Your task to perform on an android device: Check the settings for the Uber app Image 0: 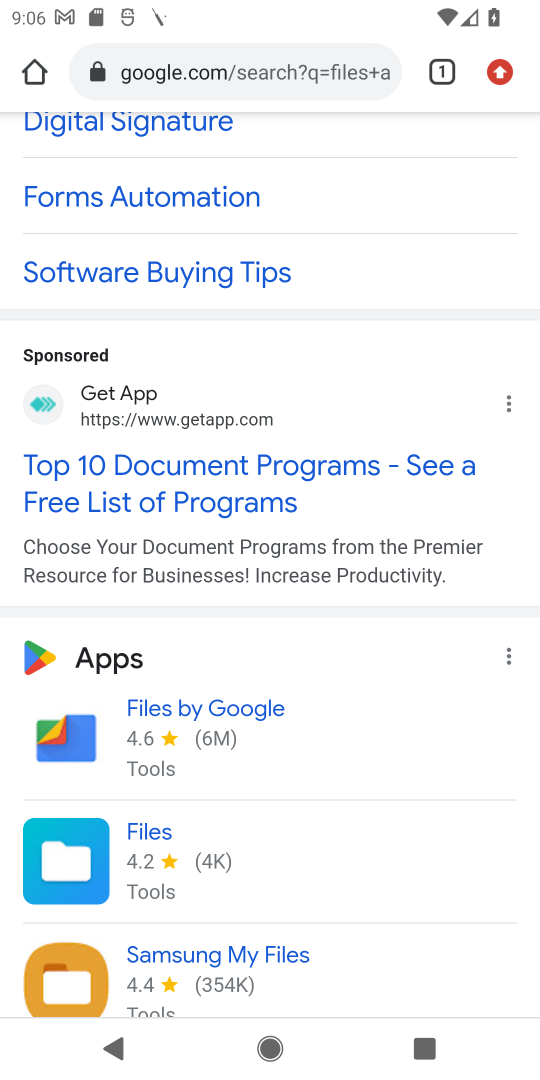
Step 0: click (229, 64)
Your task to perform on an android device: Check the settings for the Uber app Image 1: 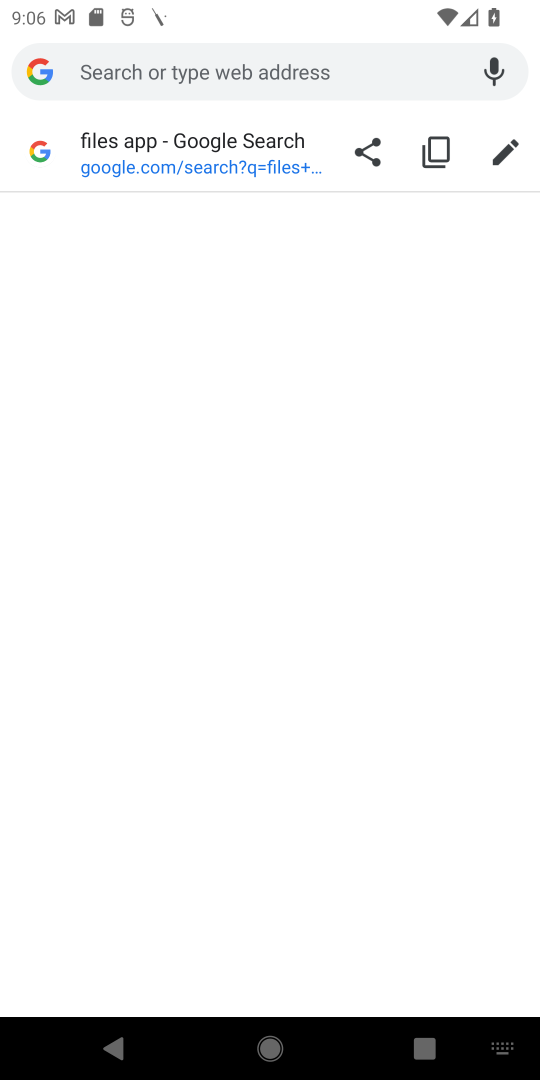
Step 1: press home button
Your task to perform on an android device: Check the settings for the Uber app Image 2: 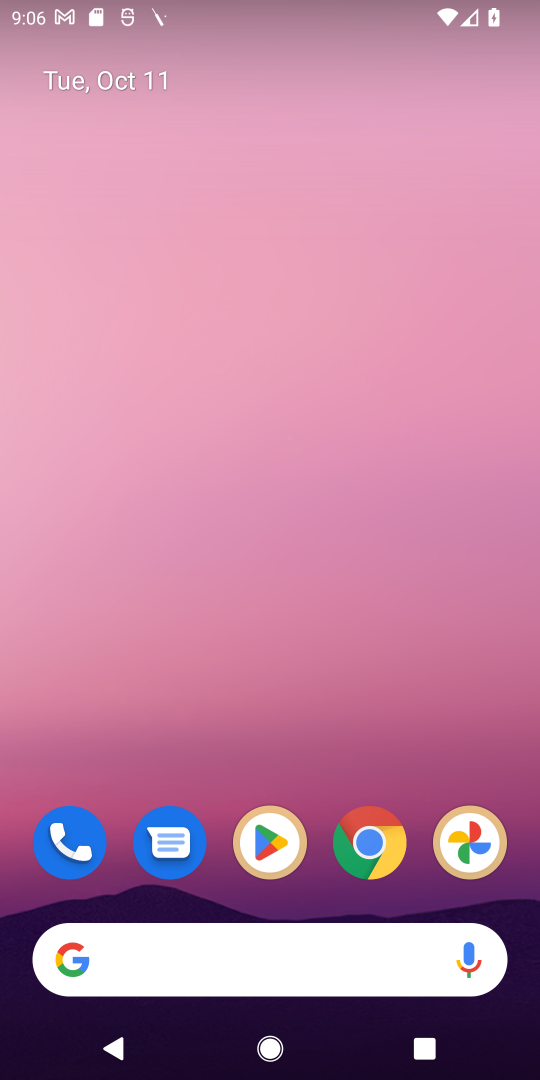
Step 2: drag from (277, 717) to (395, 153)
Your task to perform on an android device: Check the settings for the Uber app Image 3: 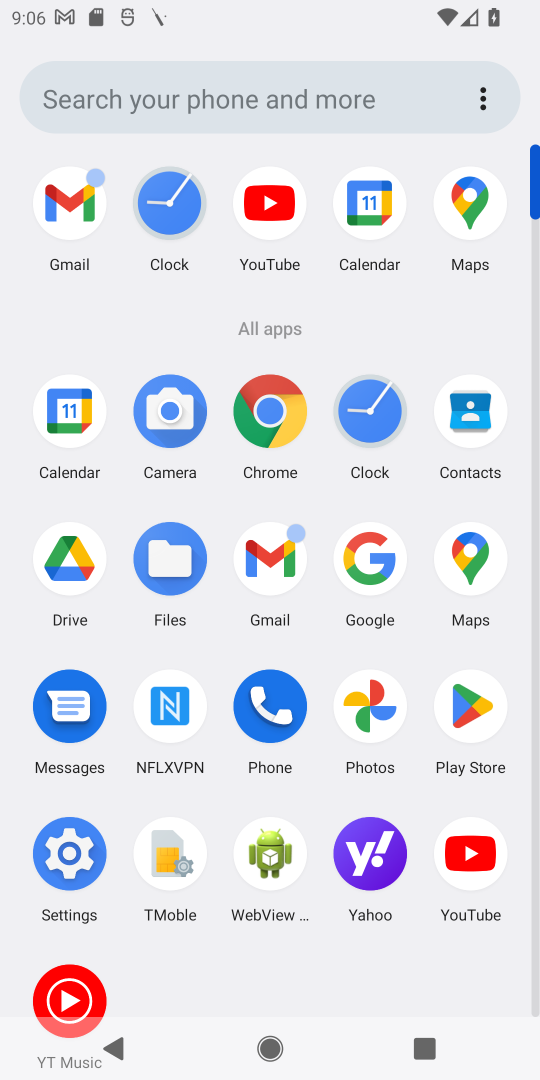
Step 3: drag from (203, 945) to (293, 353)
Your task to perform on an android device: Check the settings for the Uber app Image 4: 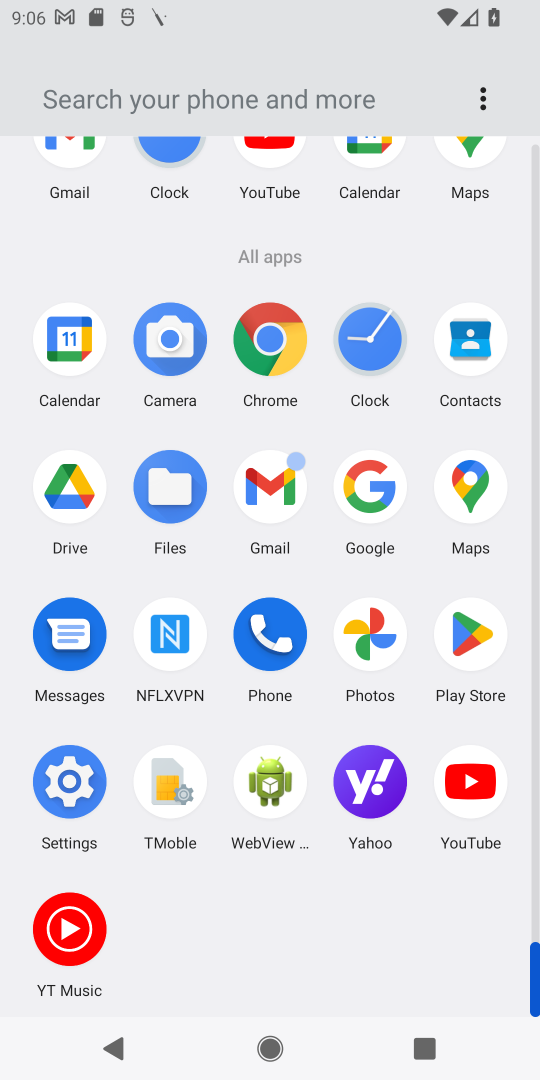
Step 4: drag from (250, 904) to (333, 479)
Your task to perform on an android device: Check the settings for the Uber app Image 5: 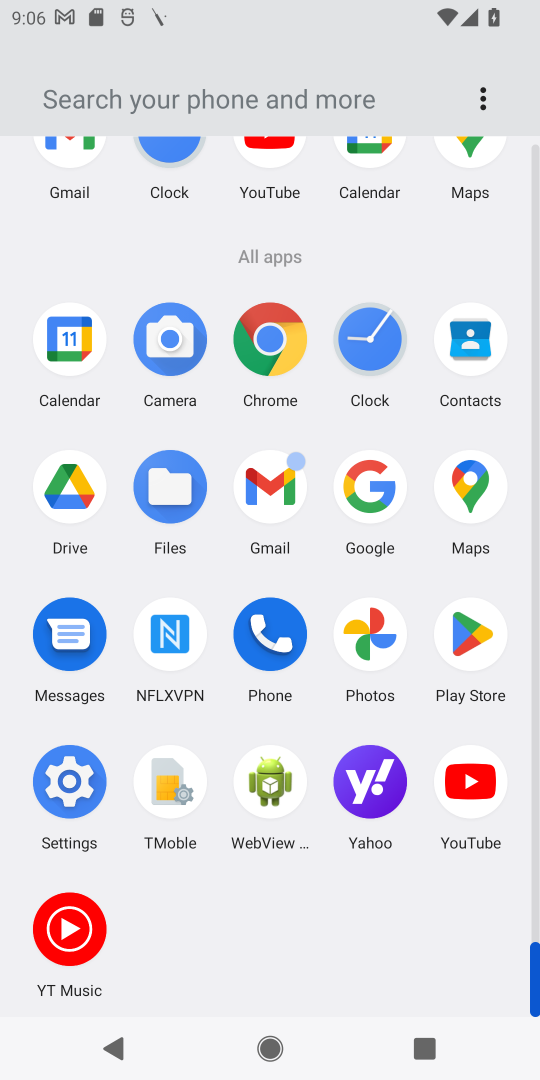
Step 5: drag from (319, 278) to (299, 964)
Your task to perform on an android device: Check the settings for the Uber app Image 6: 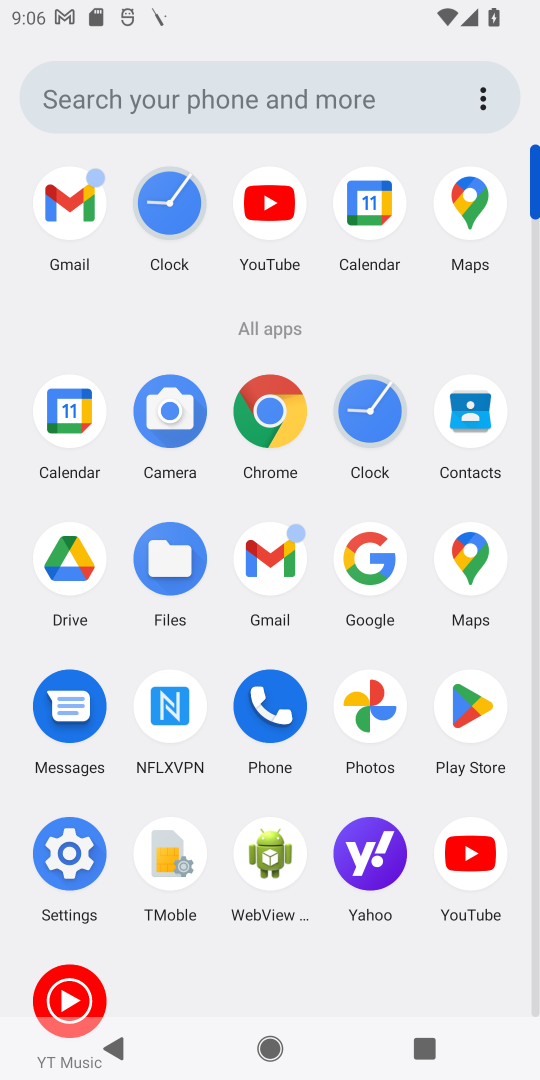
Step 6: drag from (295, 744) to (347, 324)
Your task to perform on an android device: Check the settings for the Uber app Image 7: 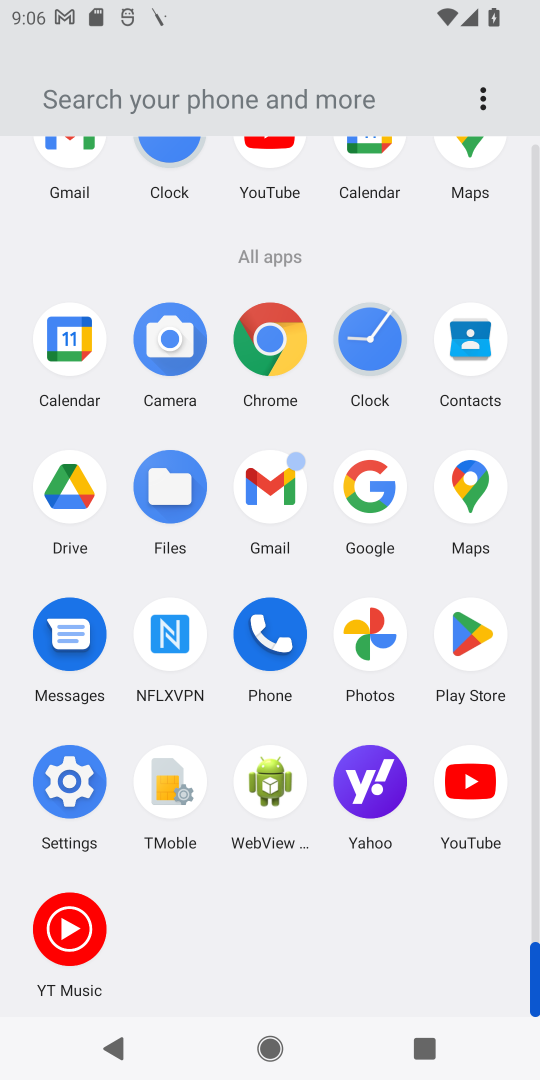
Step 7: drag from (313, 420) to (311, 998)
Your task to perform on an android device: Check the settings for the Uber app Image 8: 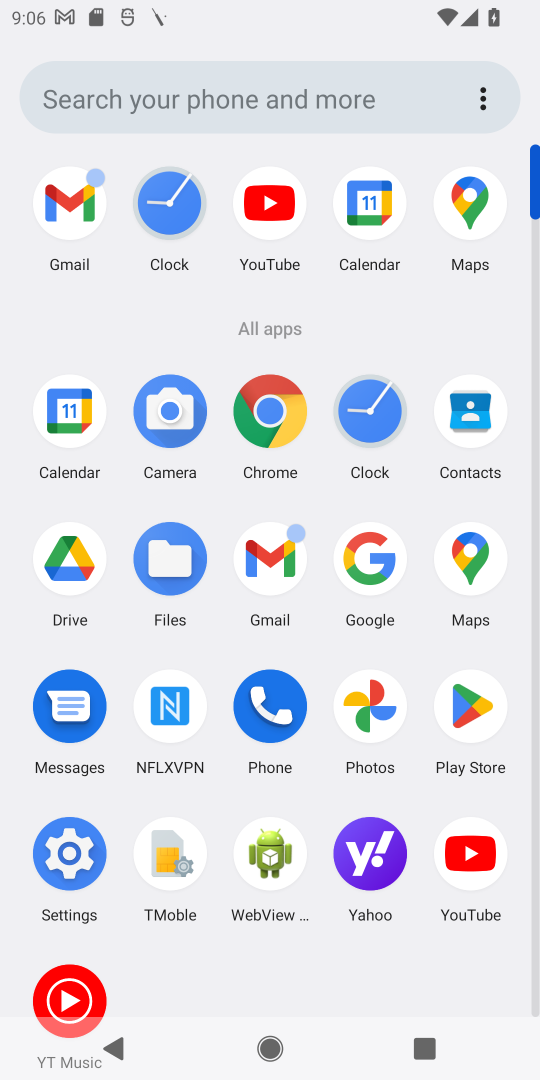
Step 8: click (466, 690)
Your task to perform on an android device: Check the settings for the Uber app Image 9: 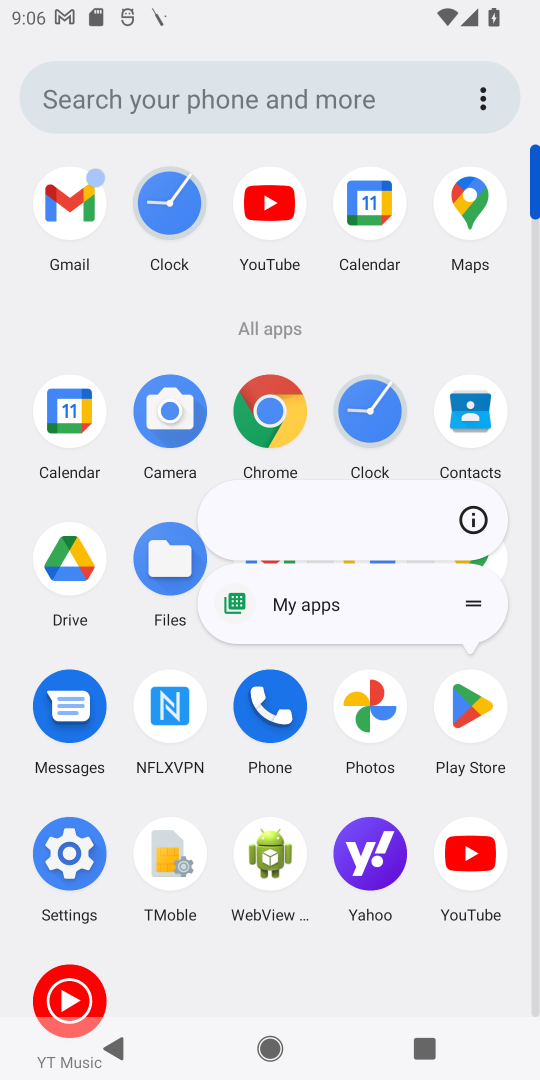
Step 9: click (473, 713)
Your task to perform on an android device: Check the settings for the Uber app Image 10: 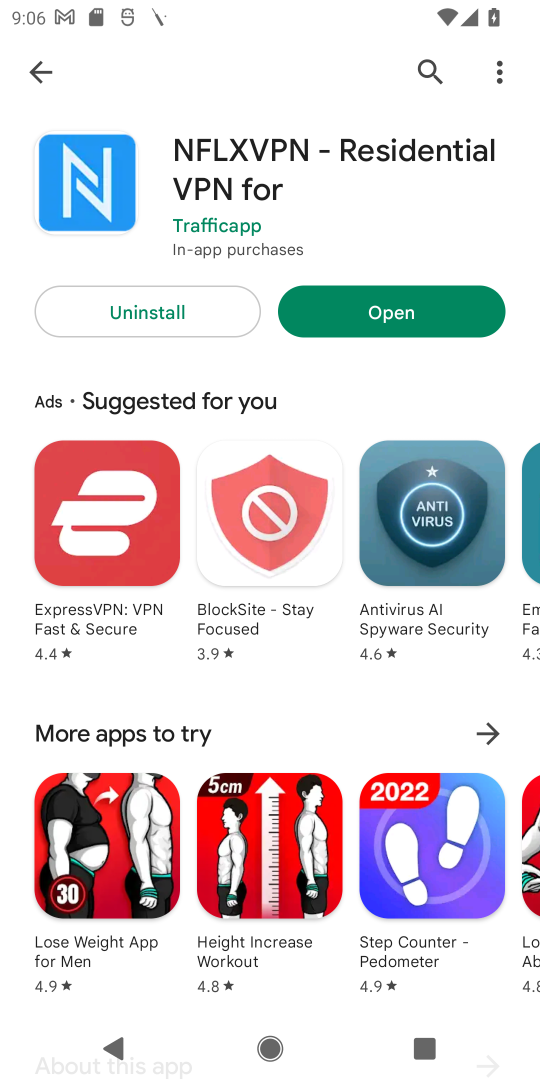
Step 10: click (417, 71)
Your task to perform on an android device: Check the settings for the Uber app Image 11: 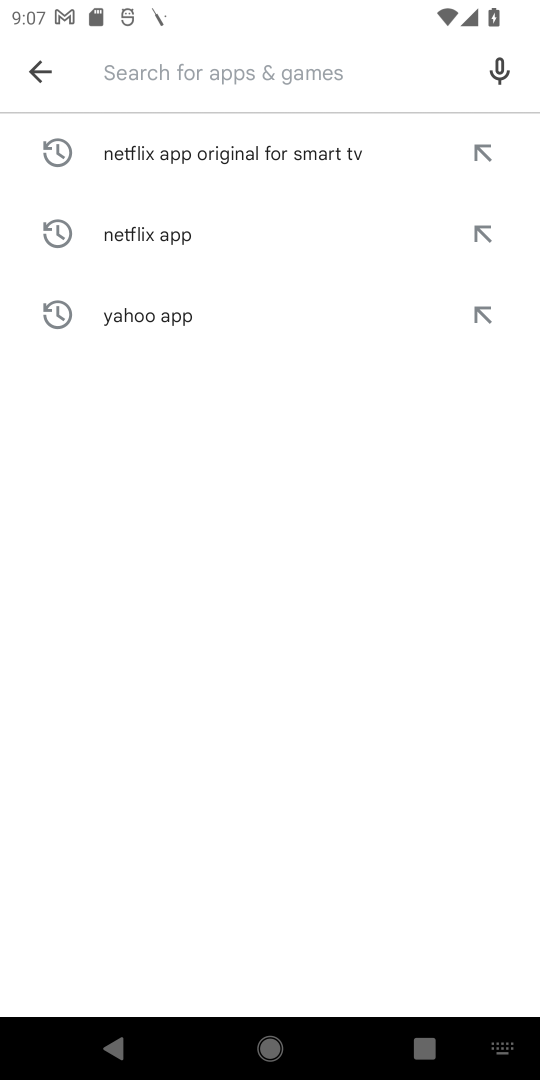
Step 11: type "uber app"
Your task to perform on an android device: Check the settings for the Uber app Image 12: 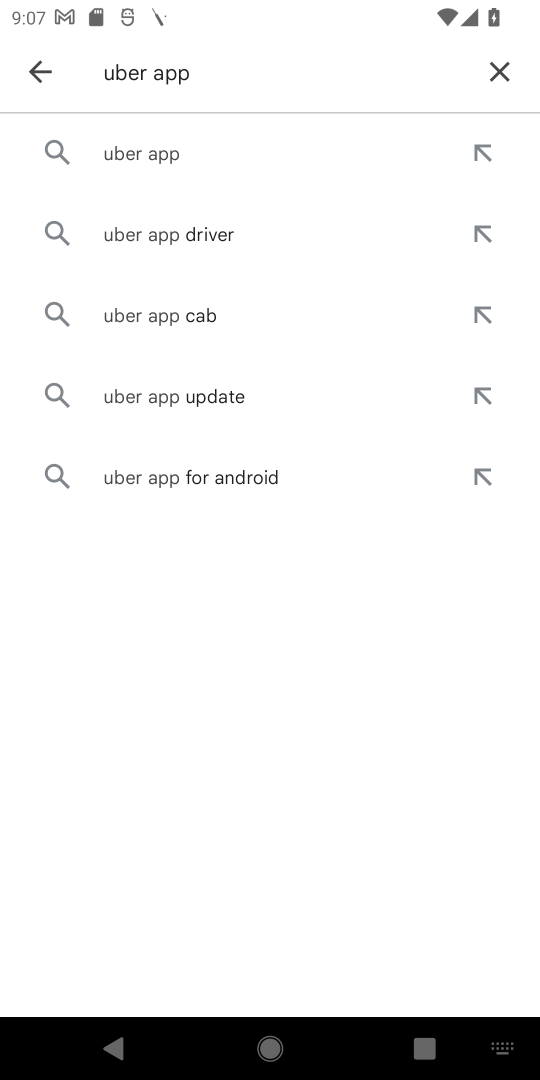
Step 12: click (141, 150)
Your task to perform on an android device: Check the settings for the Uber app Image 13: 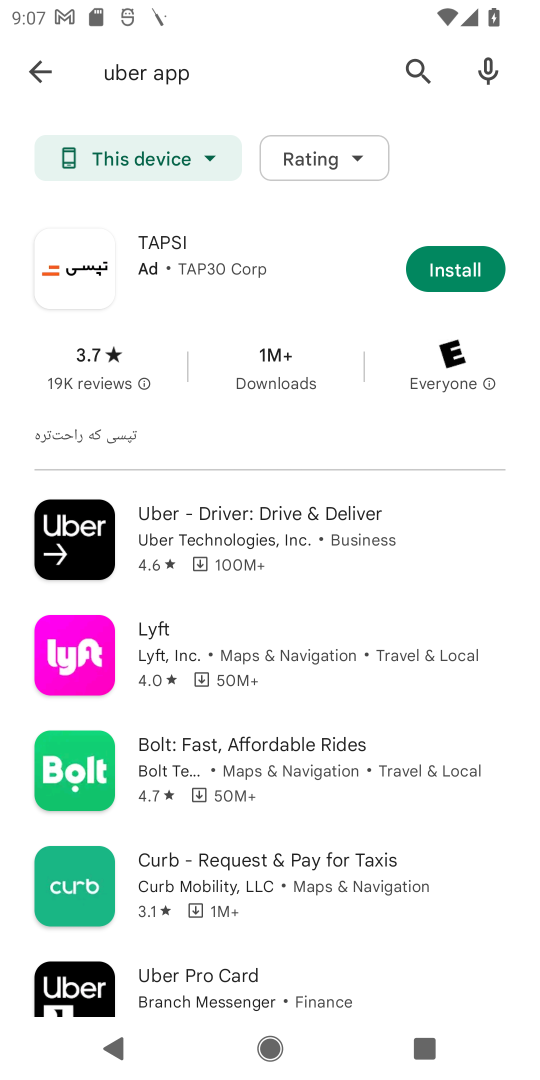
Step 13: drag from (358, 901) to (426, 618)
Your task to perform on an android device: Check the settings for the Uber app Image 14: 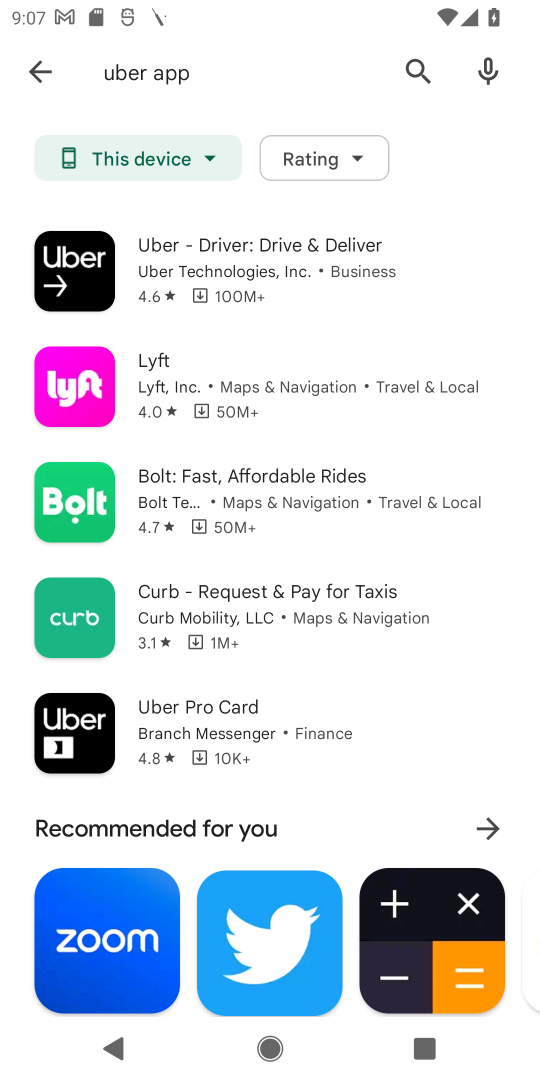
Step 14: click (163, 277)
Your task to perform on an android device: Check the settings for the Uber app Image 15: 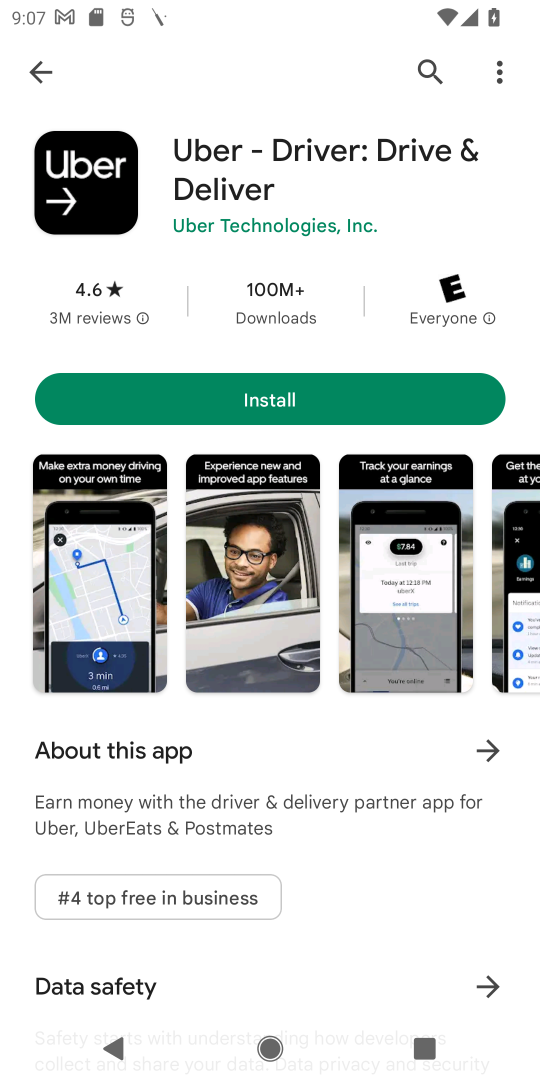
Step 15: click (307, 410)
Your task to perform on an android device: Check the settings for the Uber app Image 16: 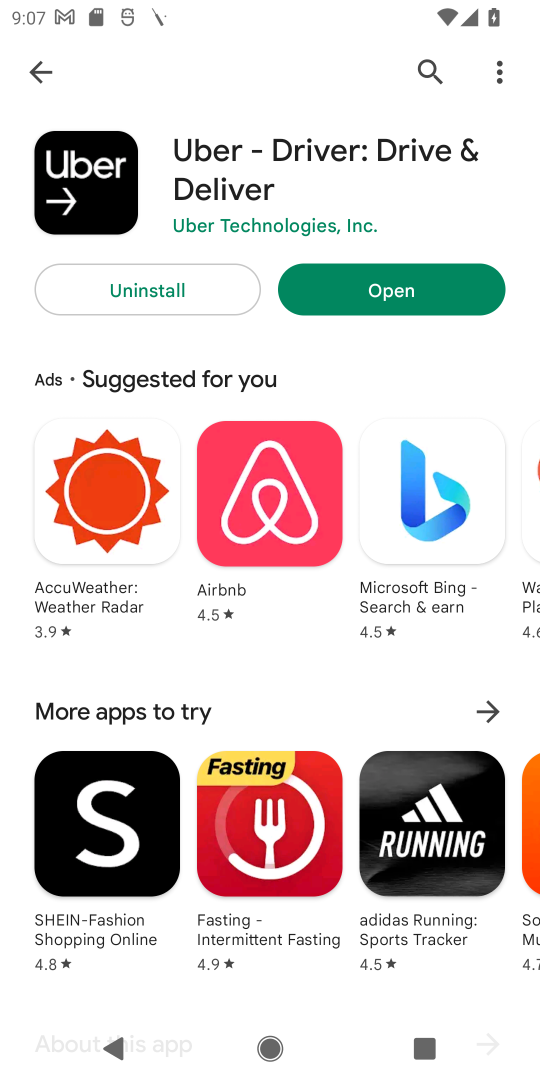
Step 16: click (391, 284)
Your task to perform on an android device: Check the settings for the Uber app Image 17: 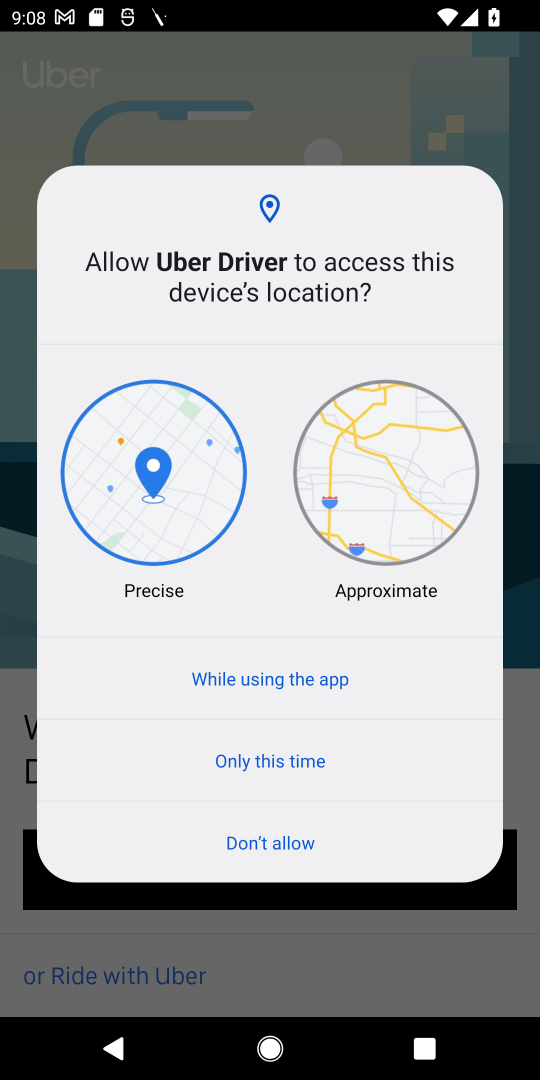
Step 17: click (300, 684)
Your task to perform on an android device: Check the settings for the Uber app Image 18: 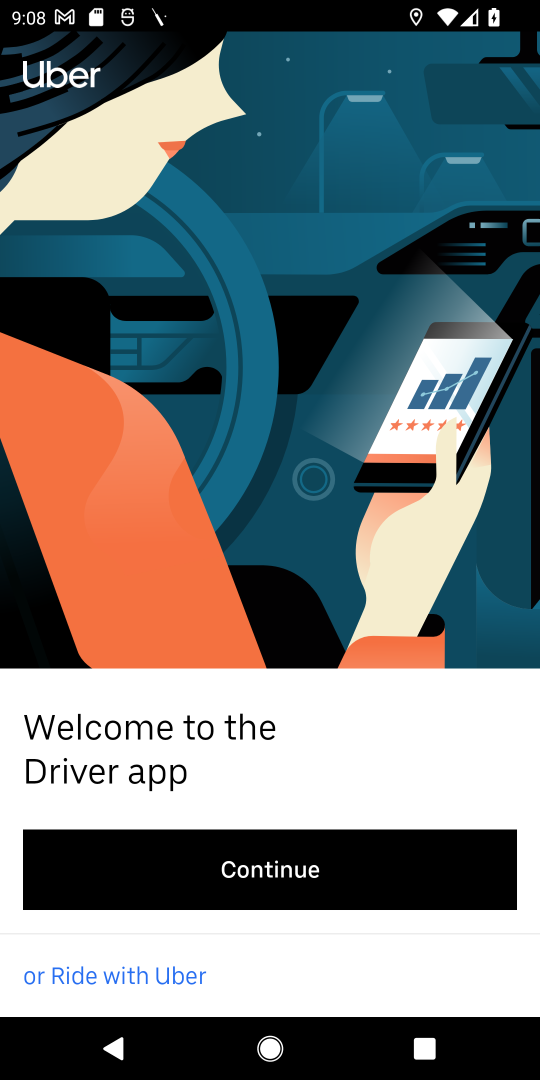
Step 18: click (292, 871)
Your task to perform on an android device: Check the settings for the Uber app Image 19: 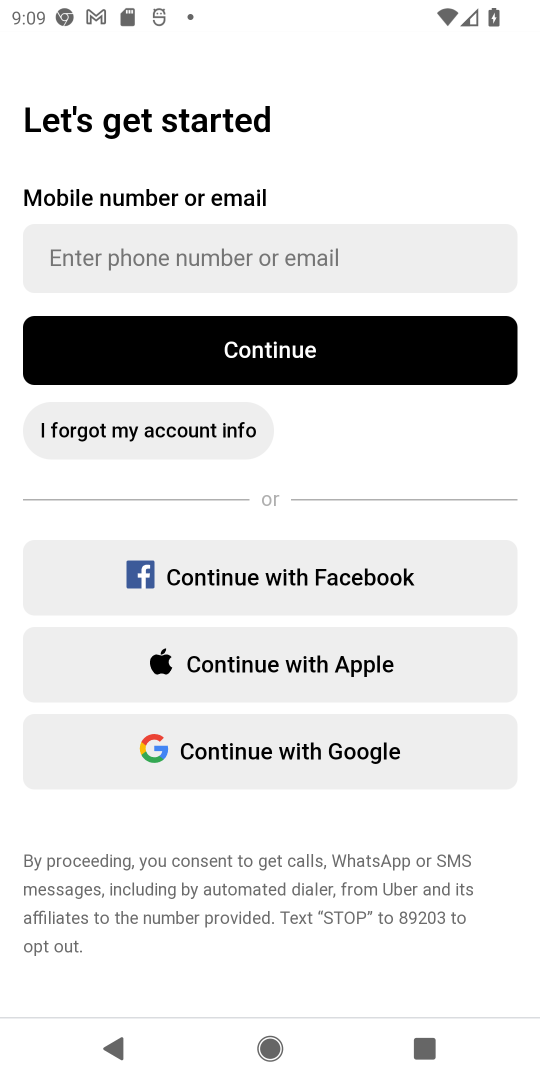
Step 19: task complete